Your task to perform on an android device: open the mobile data screen to see how much data has been used Image 0: 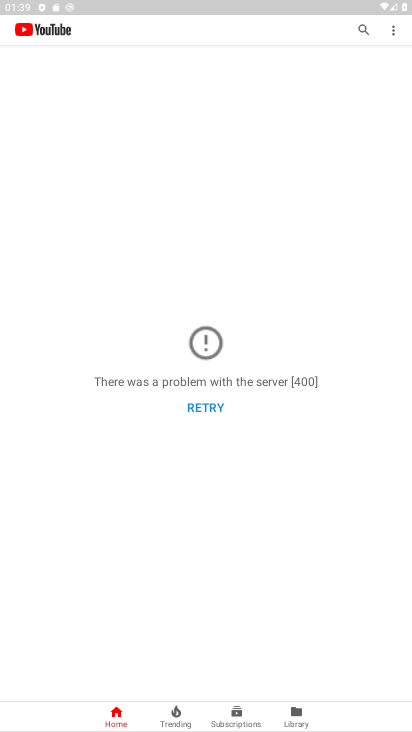
Step 0: press home button
Your task to perform on an android device: open the mobile data screen to see how much data has been used Image 1: 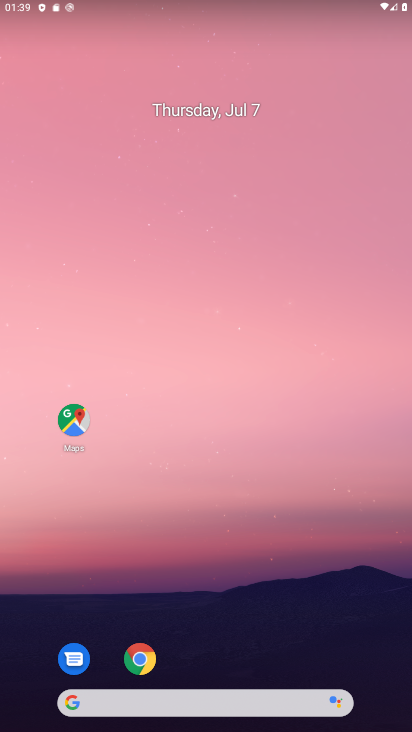
Step 1: drag from (252, 634) to (203, 149)
Your task to perform on an android device: open the mobile data screen to see how much data has been used Image 2: 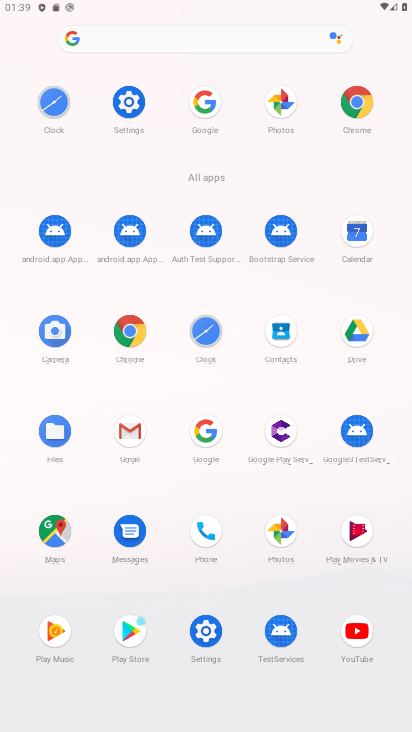
Step 2: click (133, 101)
Your task to perform on an android device: open the mobile data screen to see how much data has been used Image 3: 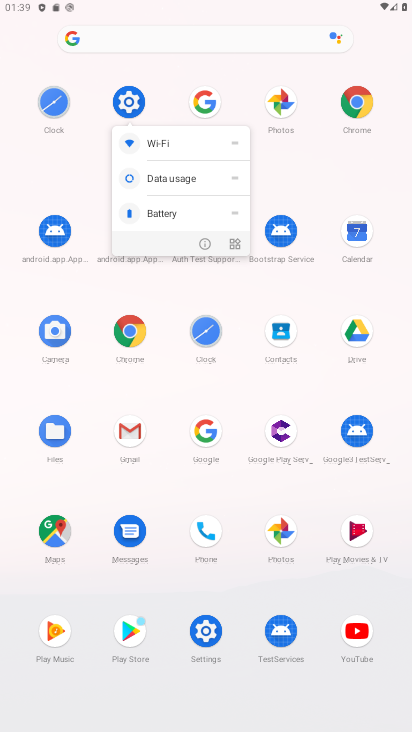
Step 3: click (133, 101)
Your task to perform on an android device: open the mobile data screen to see how much data has been used Image 4: 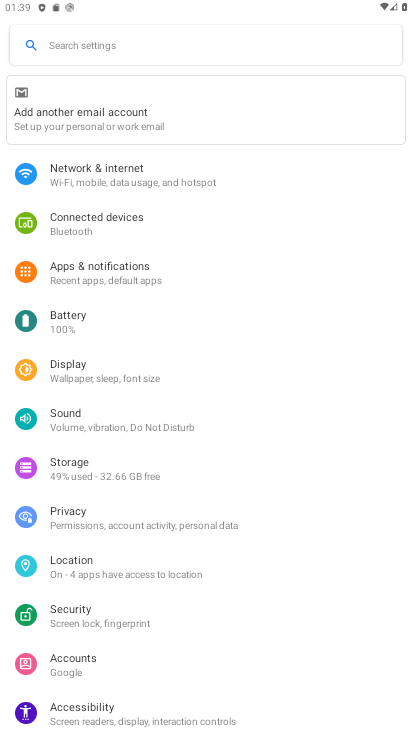
Step 4: click (174, 173)
Your task to perform on an android device: open the mobile data screen to see how much data has been used Image 5: 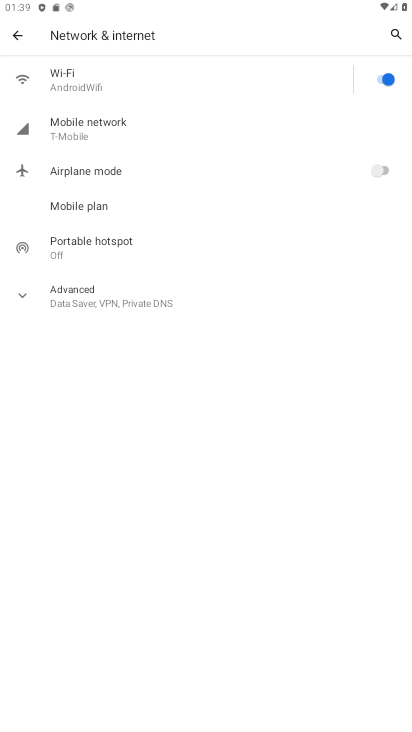
Step 5: click (127, 130)
Your task to perform on an android device: open the mobile data screen to see how much data has been used Image 6: 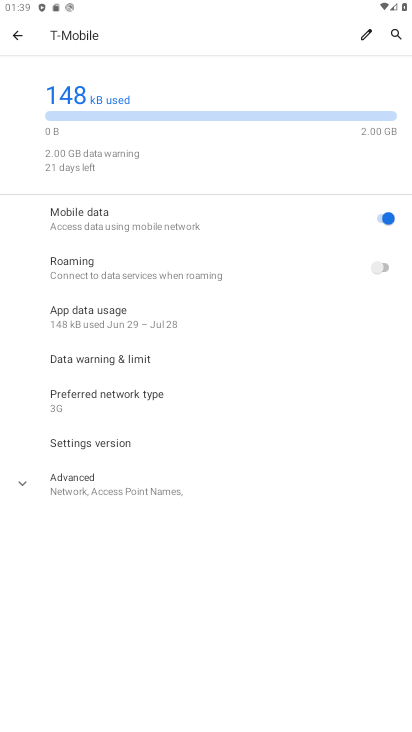
Step 6: task complete